Your task to perform on an android device: change the clock style Image 0: 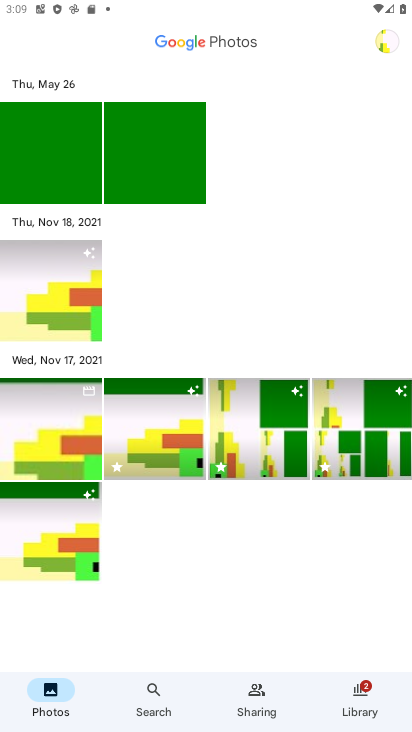
Step 0: press home button
Your task to perform on an android device: change the clock style Image 1: 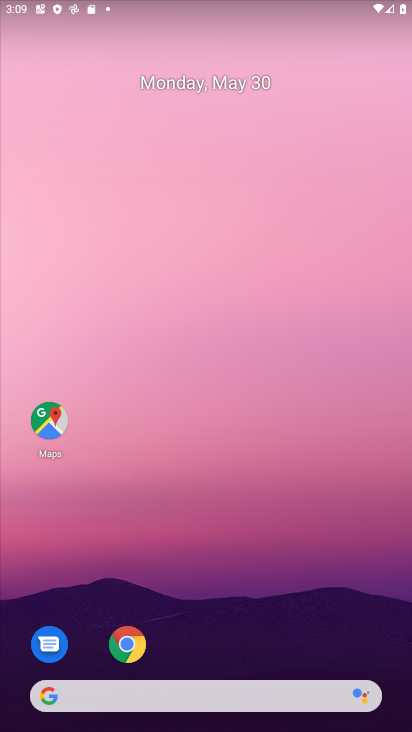
Step 1: drag from (279, 612) to (232, 90)
Your task to perform on an android device: change the clock style Image 2: 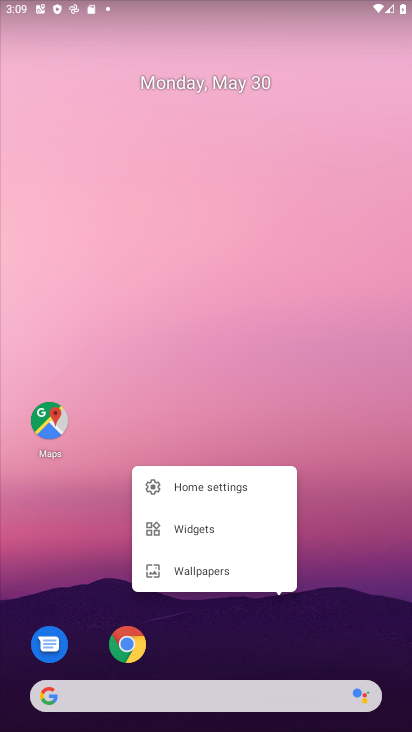
Step 2: click (252, 224)
Your task to perform on an android device: change the clock style Image 3: 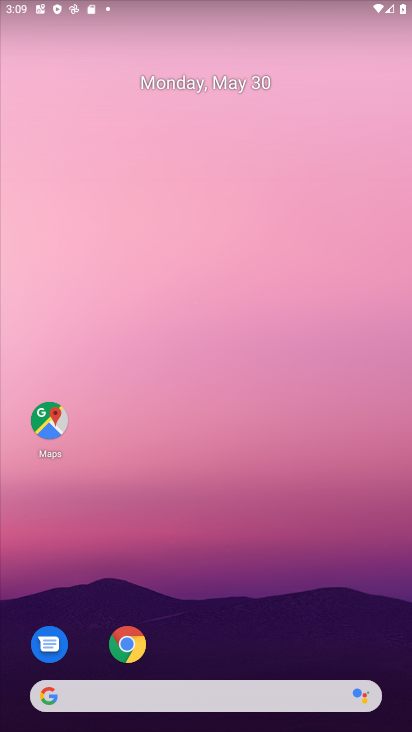
Step 3: drag from (202, 629) to (178, 68)
Your task to perform on an android device: change the clock style Image 4: 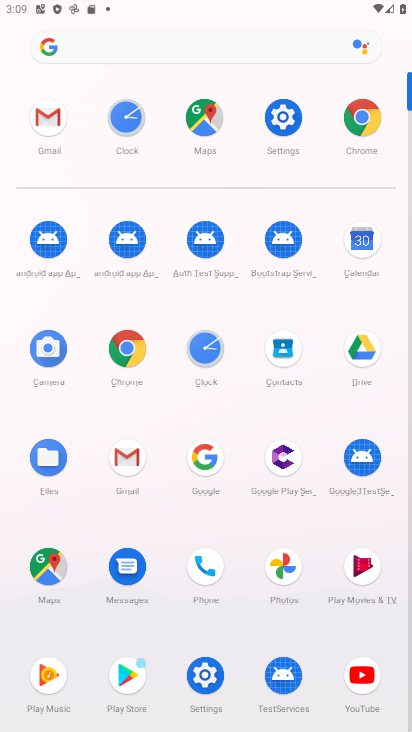
Step 4: click (143, 143)
Your task to perform on an android device: change the clock style Image 5: 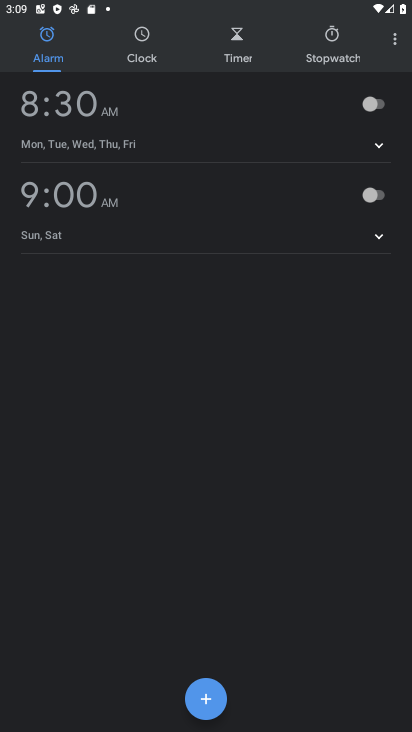
Step 5: click (396, 42)
Your task to perform on an android device: change the clock style Image 6: 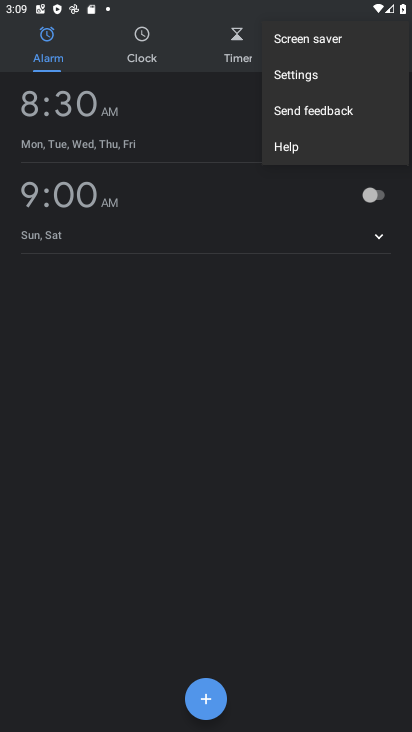
Step 6: click (327, 81)
Your task to perform on an android device: change the clock style Image 7: 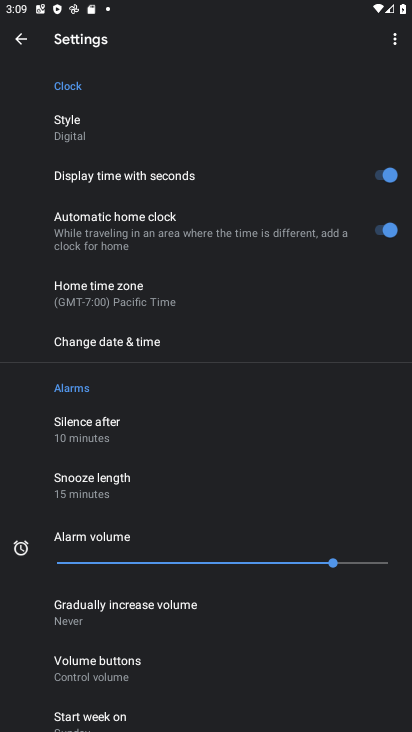
Step 7: click (154, 329)
Your task to perform on an android device: change the clock style Image 8: 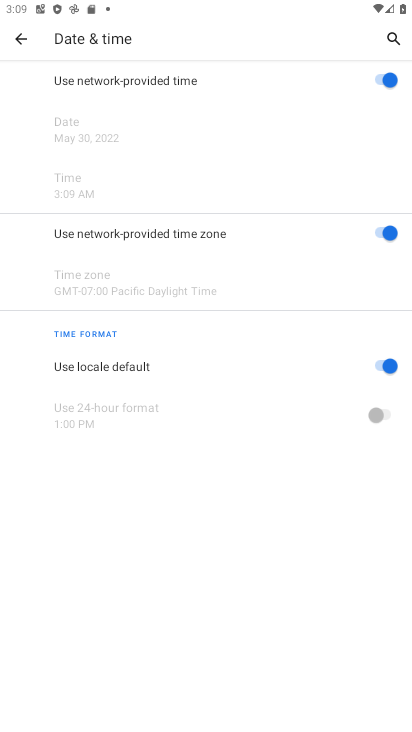
Step 8: task complete